Your task to perform on an android device: Go to Google maps Image 0: 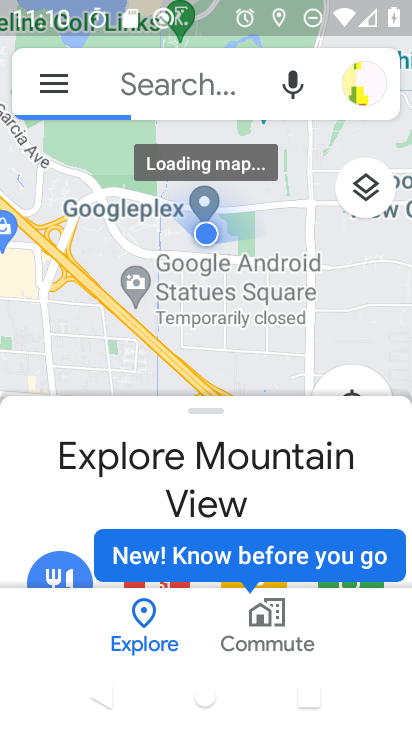
Step 0: task complete